Your task to perform on an android device: Open battery settings Image 0: 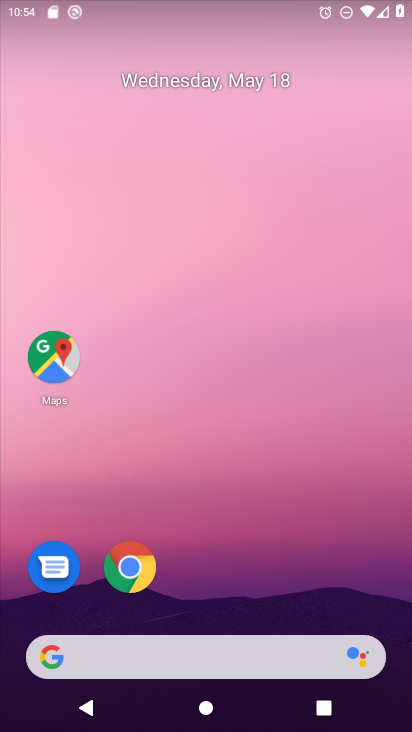
Step 0: drag from (259, 668) to (298, 9)
Your task to perform on an android device: Open battery settings Image 1: 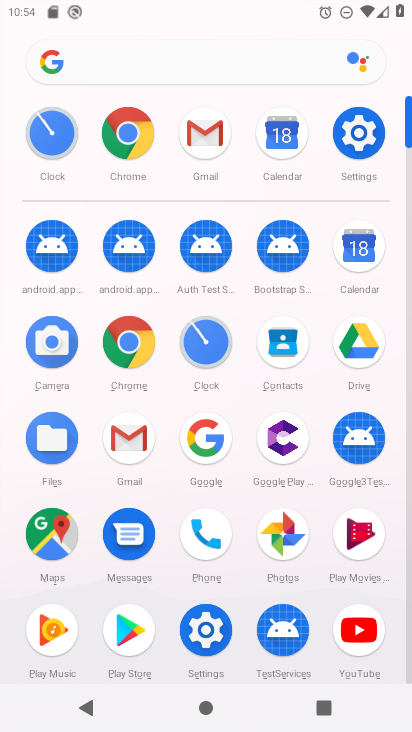
Step 1: click (193, 623)
Your task to perform on an android device: Open battery settings Image 2: 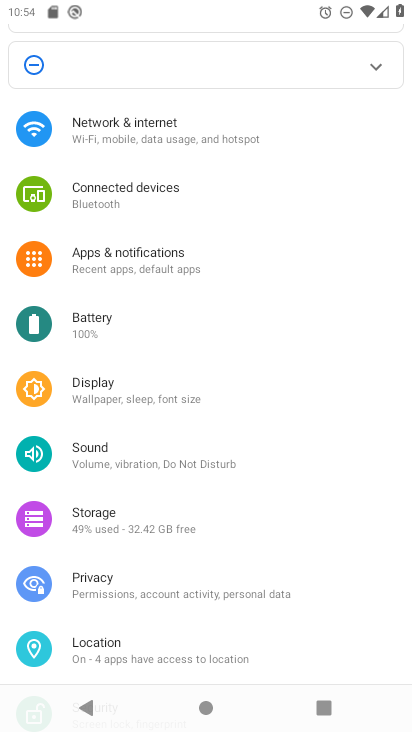
Step 2: click (125, 55)
Your task to perform on an android device: Open battery settings Image 3: 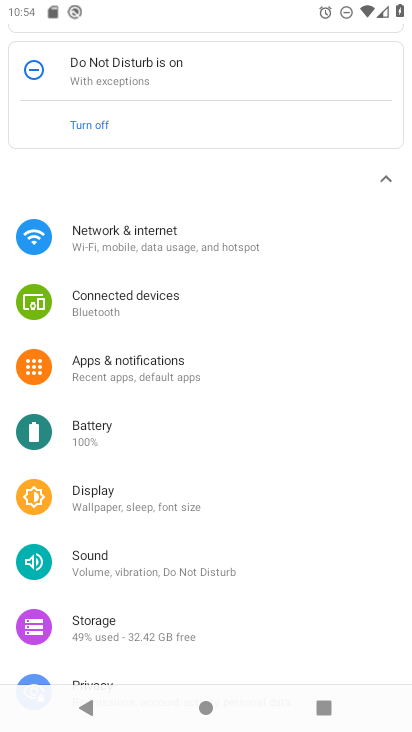
Step 3: drag from (191, 157) to (170, 334)
Your task to perform on an android device: Open battery settings Image 4: 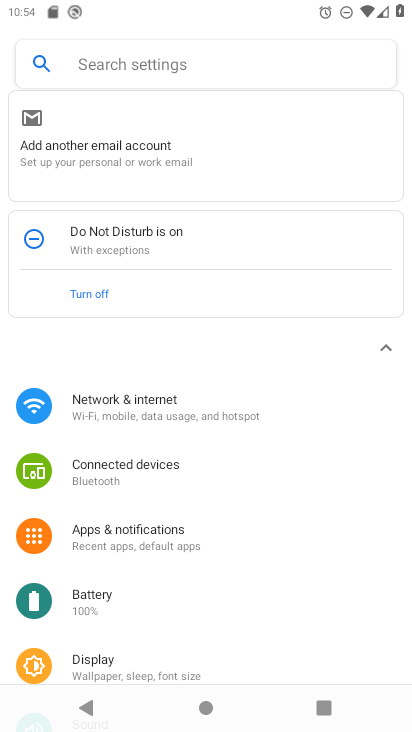
Step 4: click (108, 52)
Your task to perform on an android device: Open battery settings Image 5: 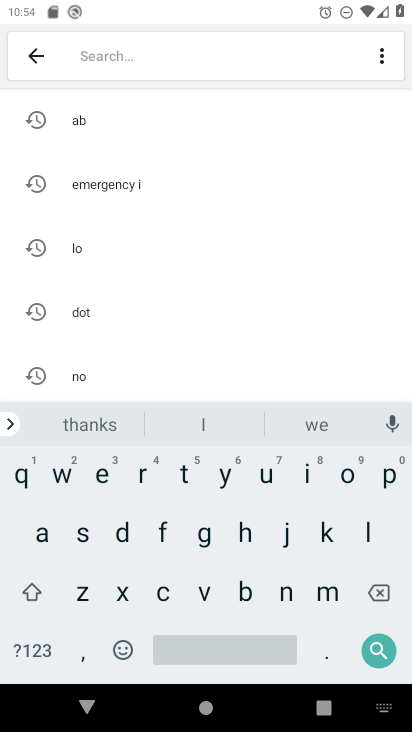
Step 5: click (244, 595)
Your task to perform on an android device: Open battery settings Image 6: 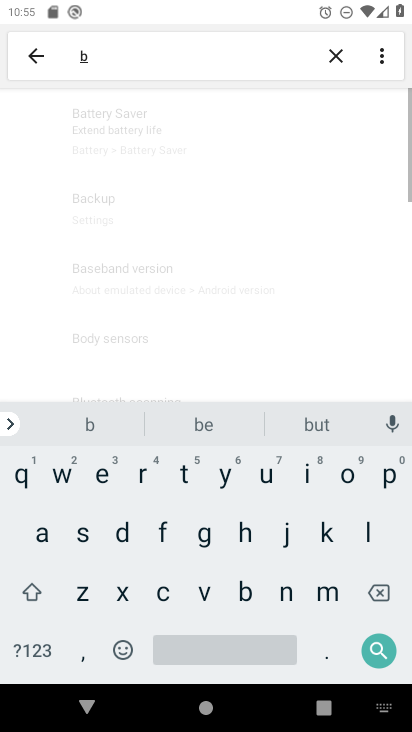
Step 6: click (35, 527)
Your task to perform on an android device: Open battery settings Image 7: 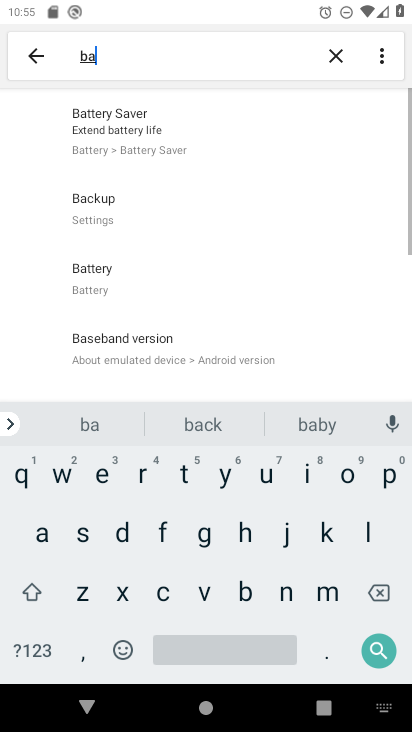
Step 7: click (187, 478)
Your task to perform on an android device: Open battery settings Image 8: 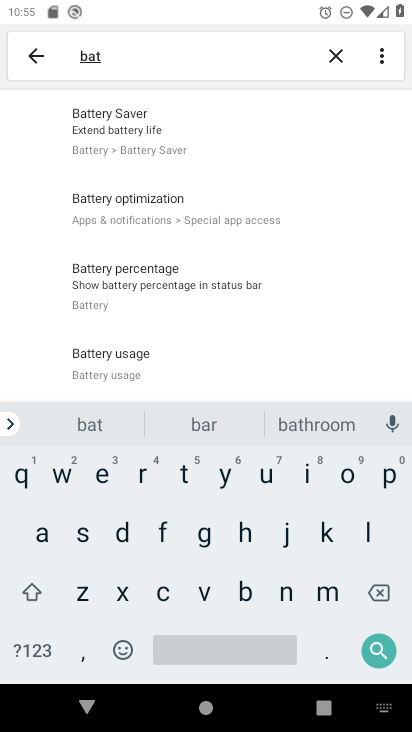
Step 8: click (187, 478)
Your task to perform on an android device: Open battery settings Image 9: 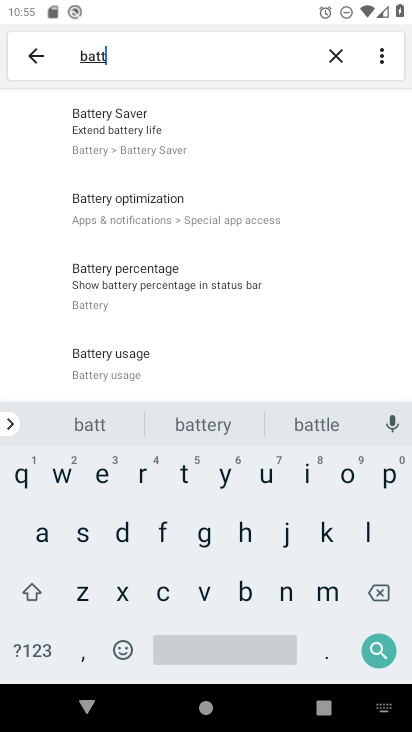
Step 9: click (191, 420)
Your task to perform on an android device: Open battery settings Image 10: 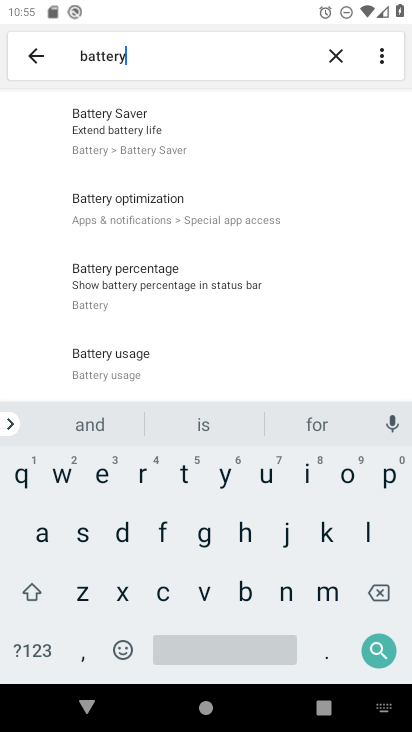
Step 10: drag from (203, 327) to (215, 222)
Your task to perform on an android device: Open battery settings Image 11: 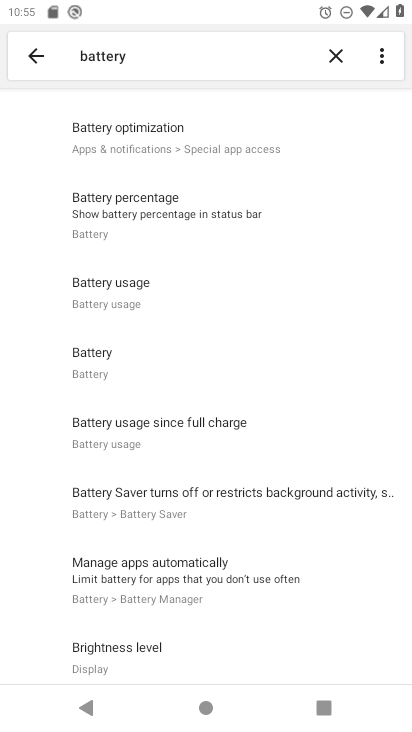
Step 11: click (117, 349)
Your task to perform on an android device: Open battery settings Image 12: 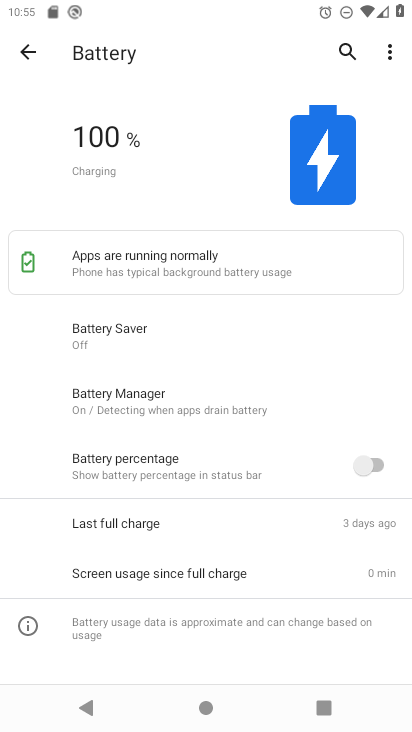
Step 12: task complete